Your task to perform on an android device: change timer sound Image 0: 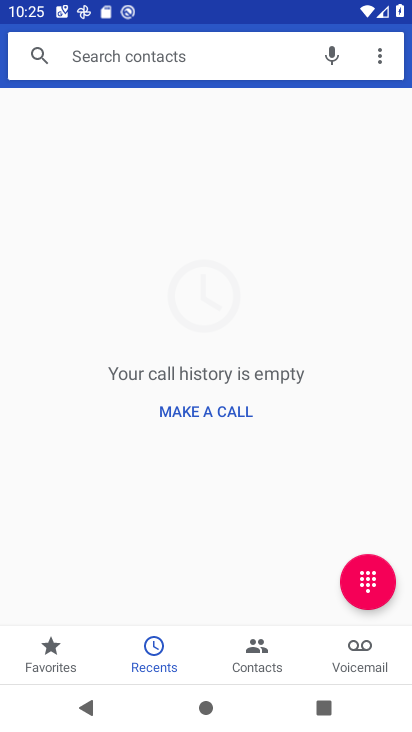
Step 0: press home button
Your task to perform on an android device: change timer sound Image 1: 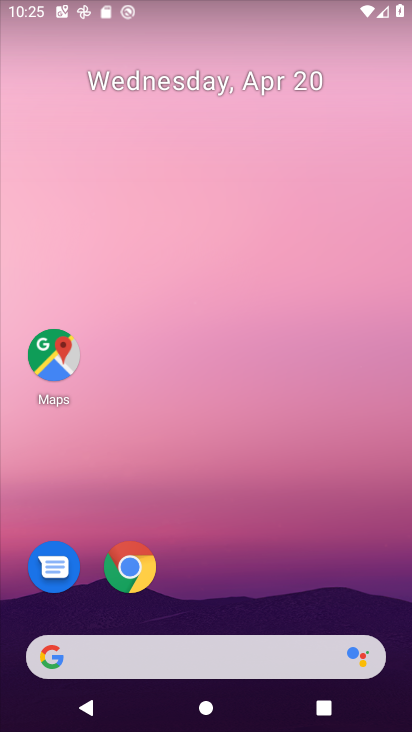
Step 1: drag from (309, 579) to (301, 171)
Your task to perform on an android device: change timer sound Image 2: 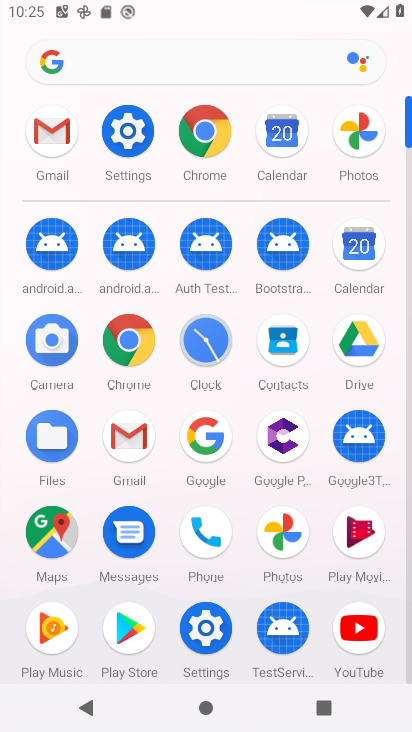
Step 2: click (196, 345)
Your task to perform on an android device: change timer sound Image 3: 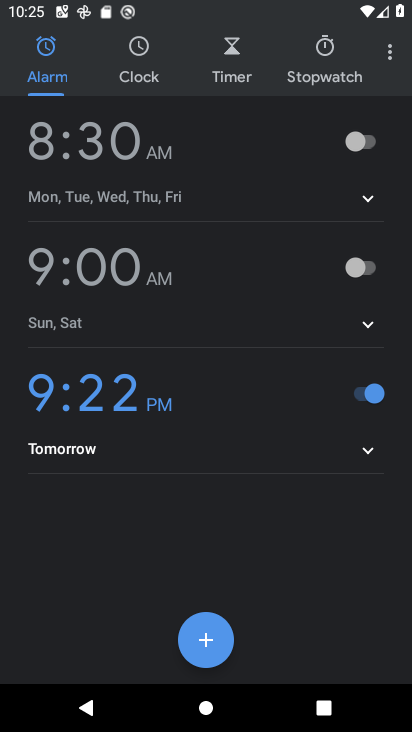
Step 3: click (392, 57)
Your task to perform on an android device: change timer sound Image 4: 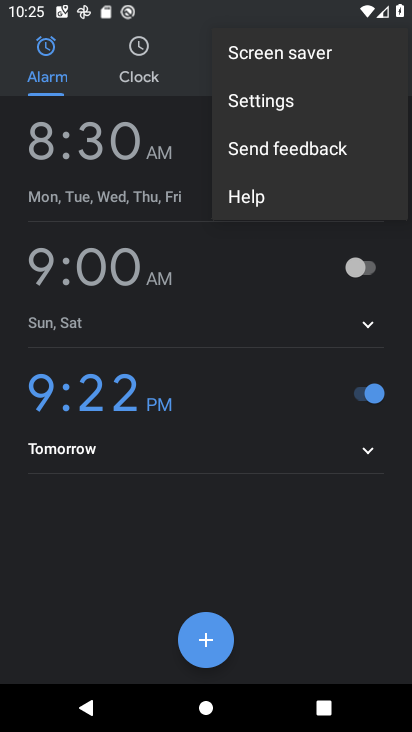
Step 4: click (271, 104)
Your task to perform on an android device: change timer sound Image 5: 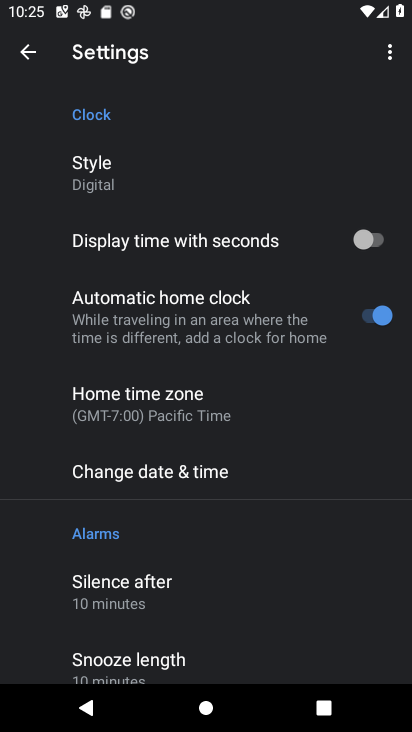
Step 5: drag from (331, 566) to (330, 462)
Your task to perform on an android device: change timer sound Image 6: 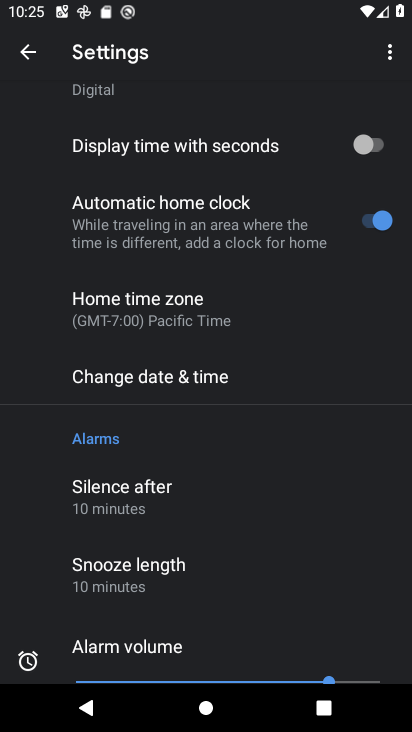
Step 6: drag from (328, 567) to (332, 391)
Your task to perform on an android device: change timer sound Image 7: 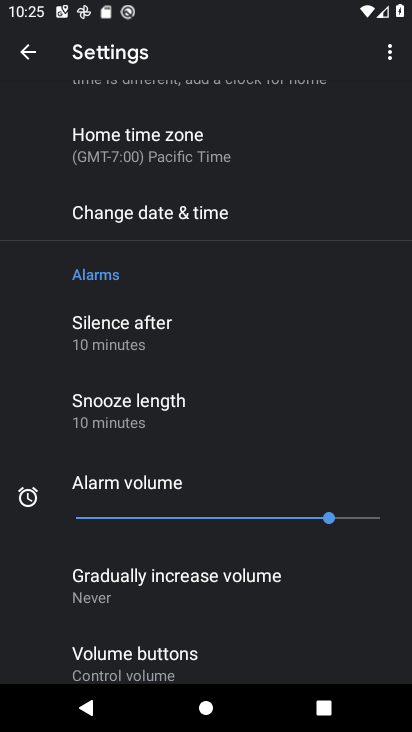
Step 7: drag from (329, 583) to (342, 380)
Your task to perform on an android device: change timer sound Image 8: 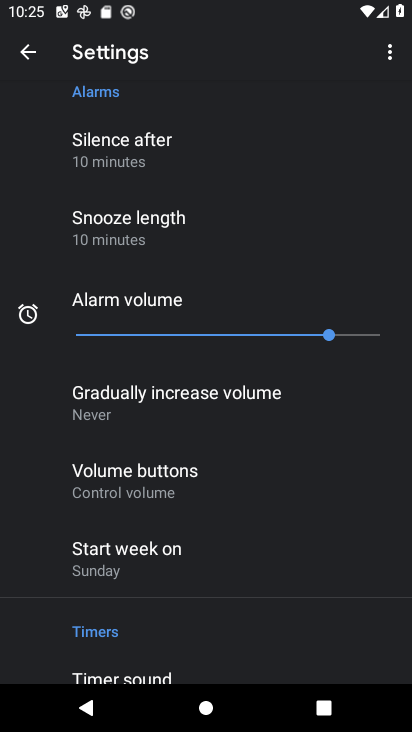
Step 8: drag from (356, 556) to (361, 413)
Your task to perform on an android device: change timer sound Image 9: 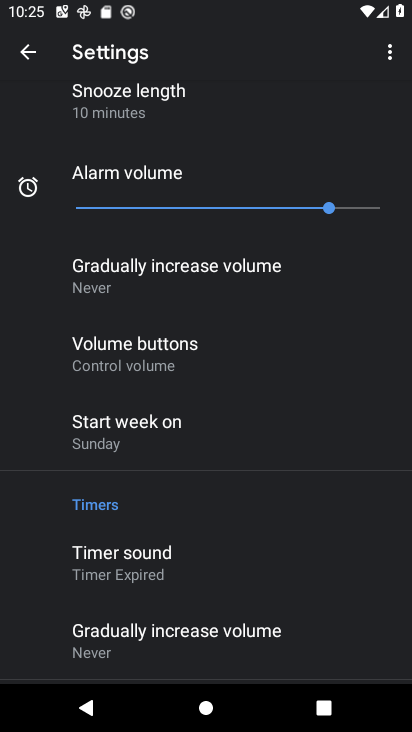
Step 9: drag from (348, 519) to (348, 382)
Your task to perform on an android device: change timer sound Image 10: 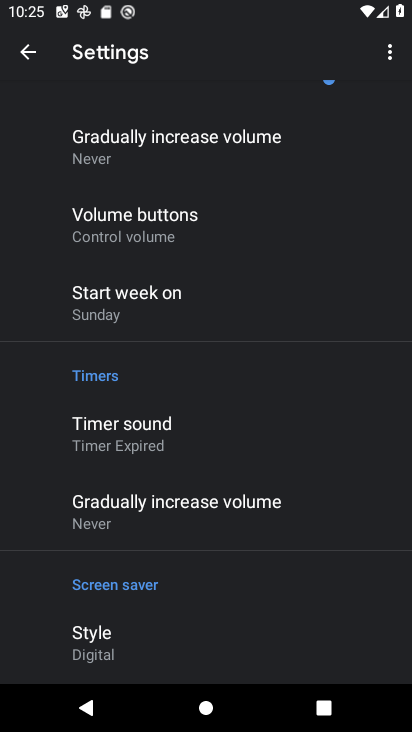
Step 10: drag from (346, 572) to (347, 384)
Your task to perform on an android device: change timer sound Image 11: 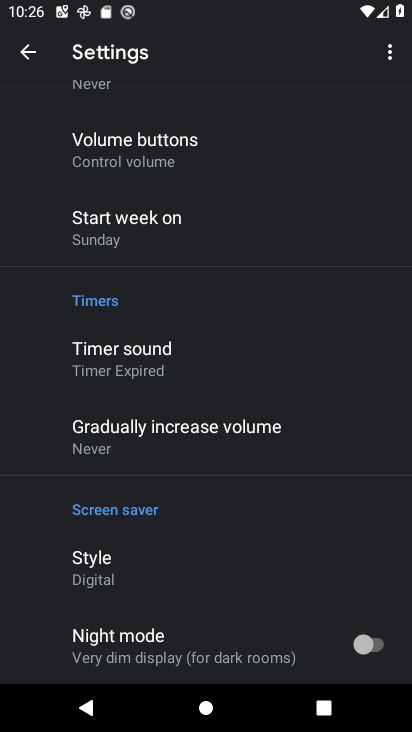
Step 11: click (145, 362)
Your task to perform on an android device: change timer sound Image 12: 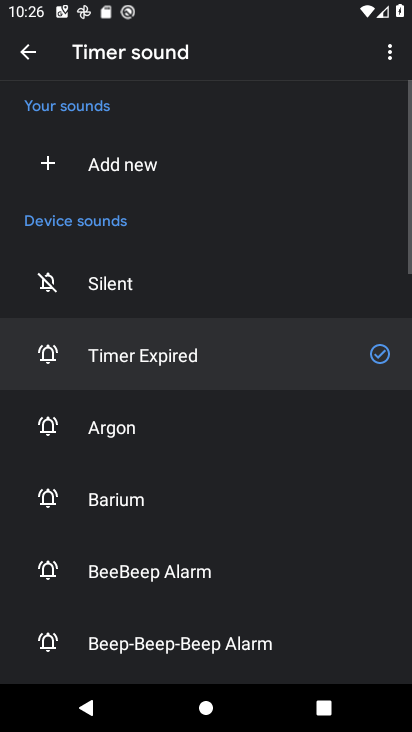
Step 12: click (131, 436)
Your task to perform on an android device: change timer sound Image 13: 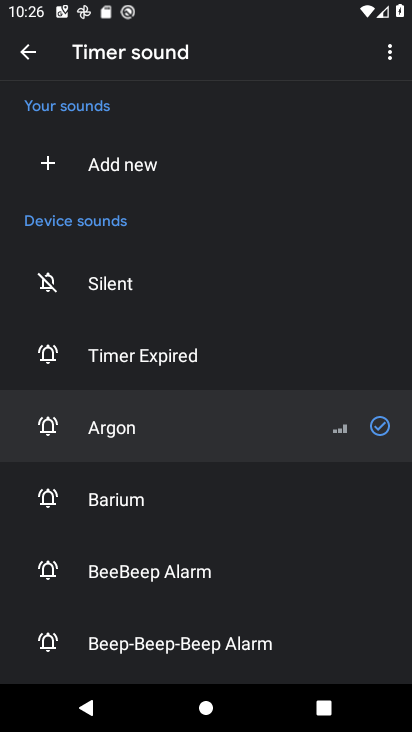
Step 13: task complete